Your task to perform on an android device: Open Google Maps and go to "Timeline" Image 0: 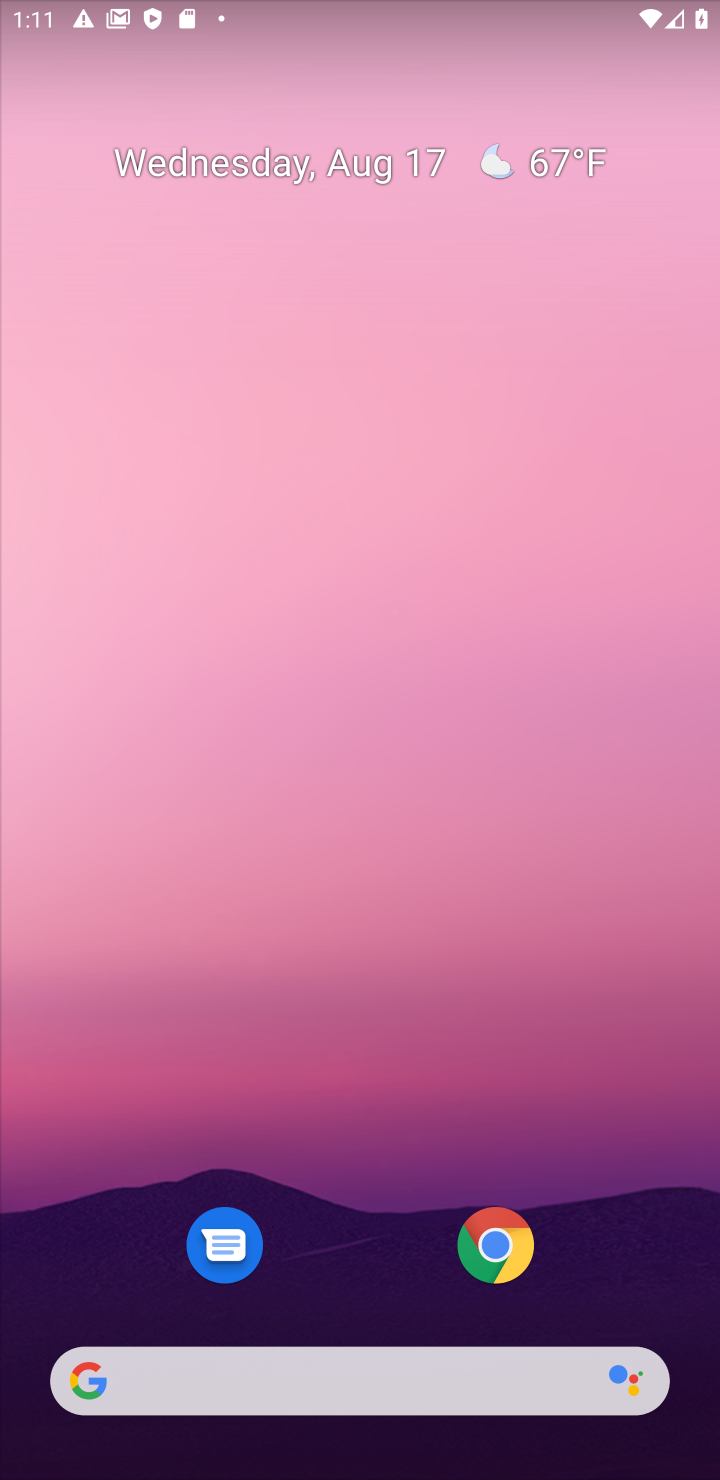
Step 0: drag from (333, 940) to (338, 486)
Your task to perform on an android device: Open Google Maps and go to "Timeline" Image 1: 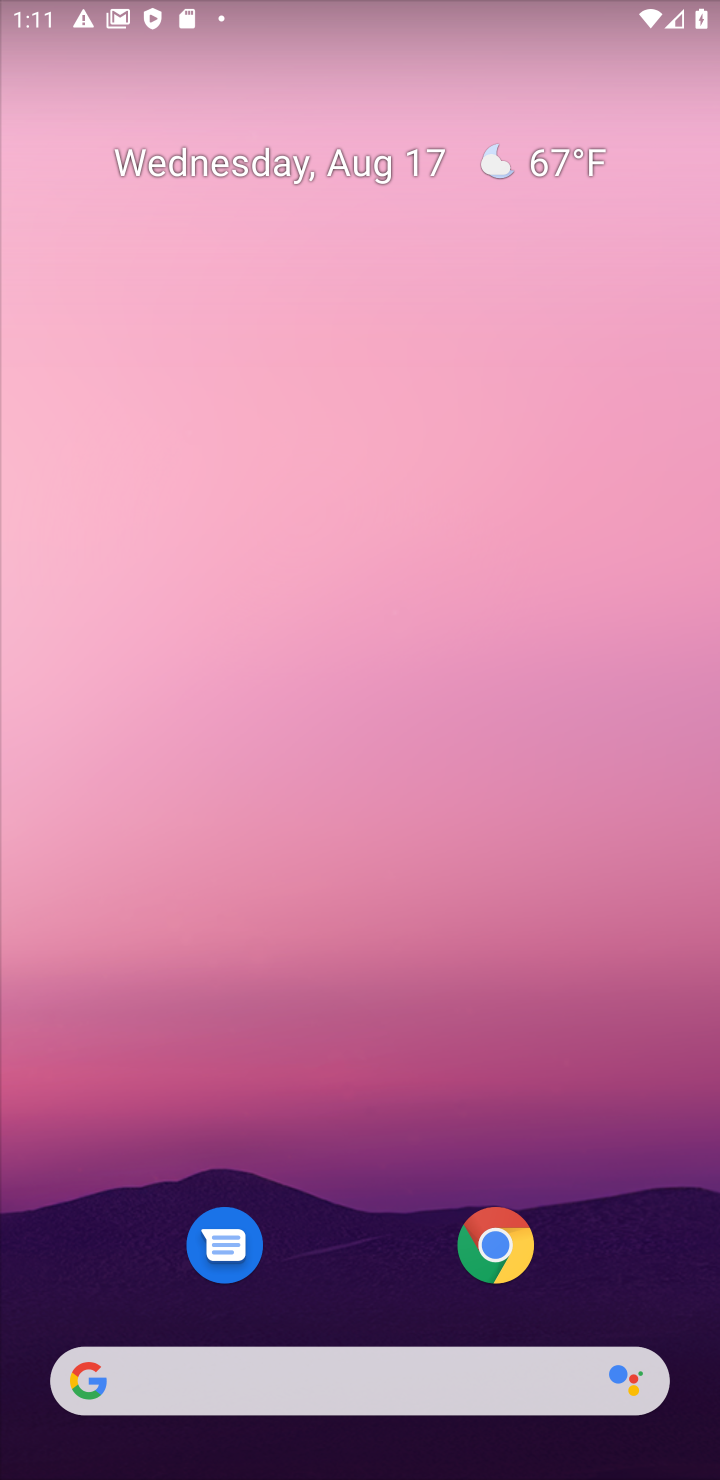
Step 1: drag from (365, 1008) to (281, 122)
Your task to perform on an android device: Open Google Maps and go to "Timeline" Image 2: 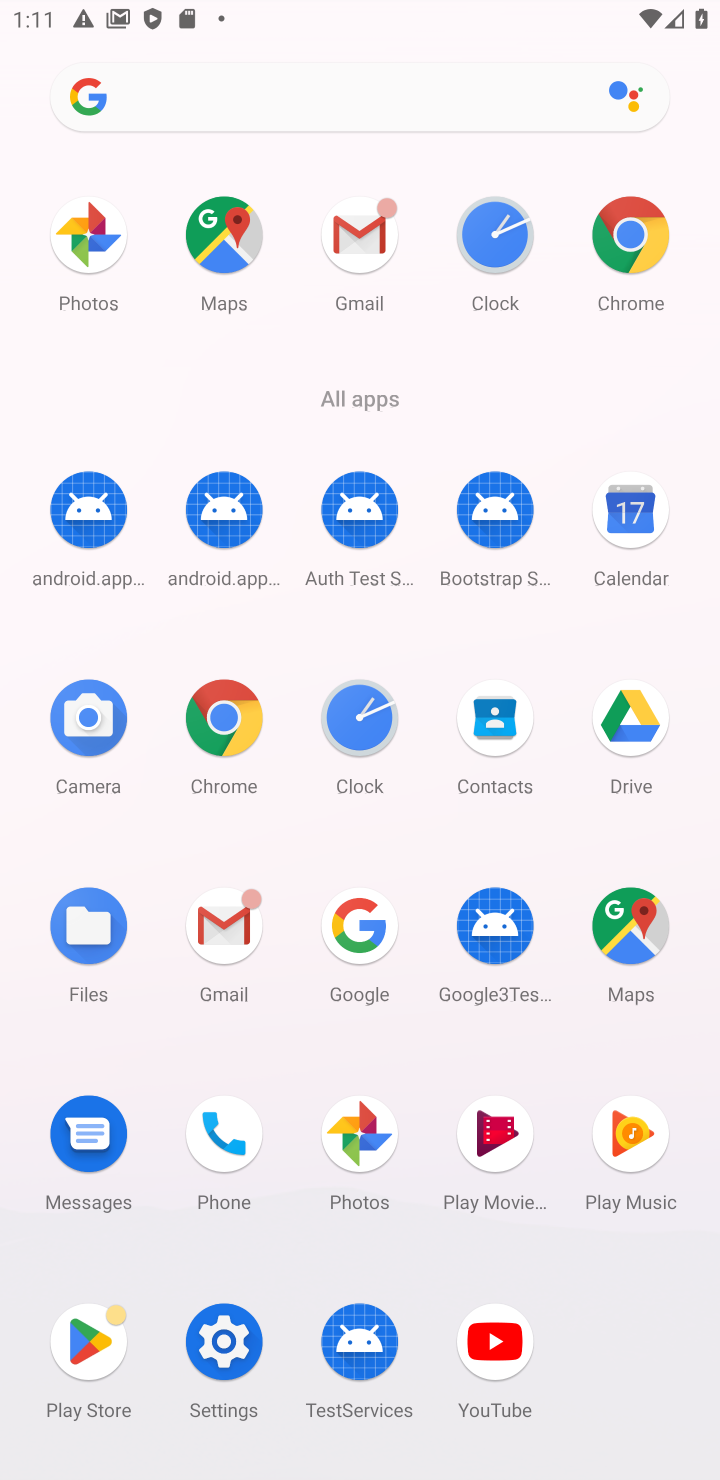
Step 2: click (639, 913)
Your task to perform on an android device: Open Google Maps and go to "Timeline" Image 3: 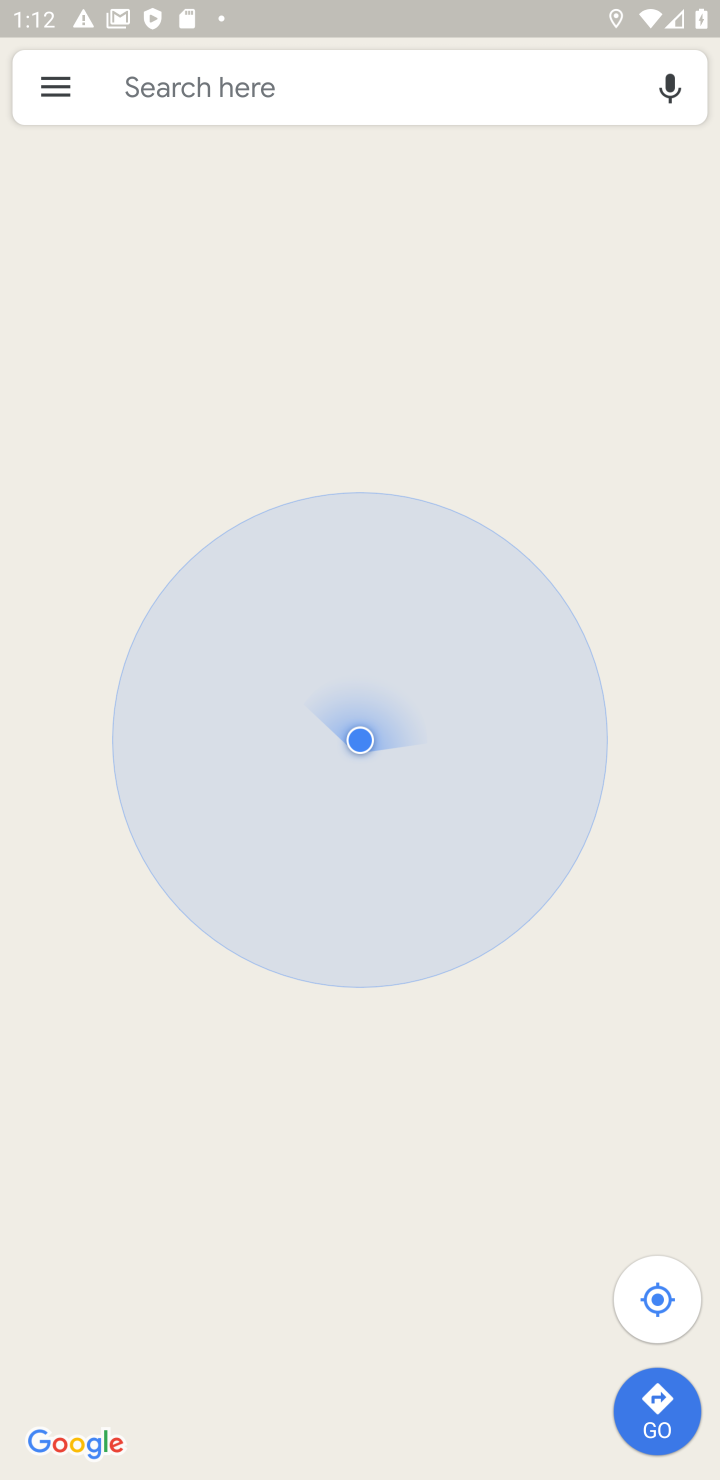
Step 3: click (49, 94)
Your task to perform on an android device: Open Google Maps and go to "Timeline" Image 4: 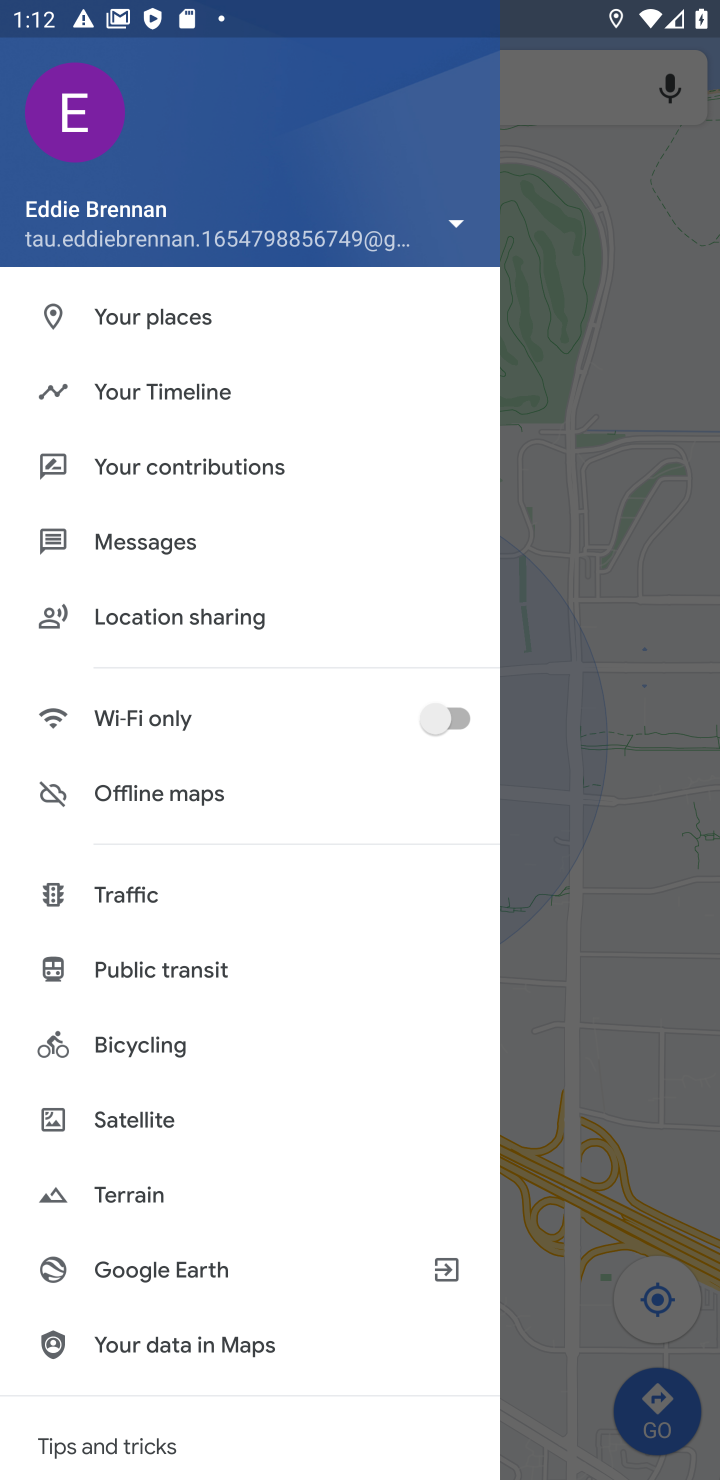
Step 4: click (201, 384)
Your task to perform on an android device: Open Google Maps and go to "Timeline" Image 5: 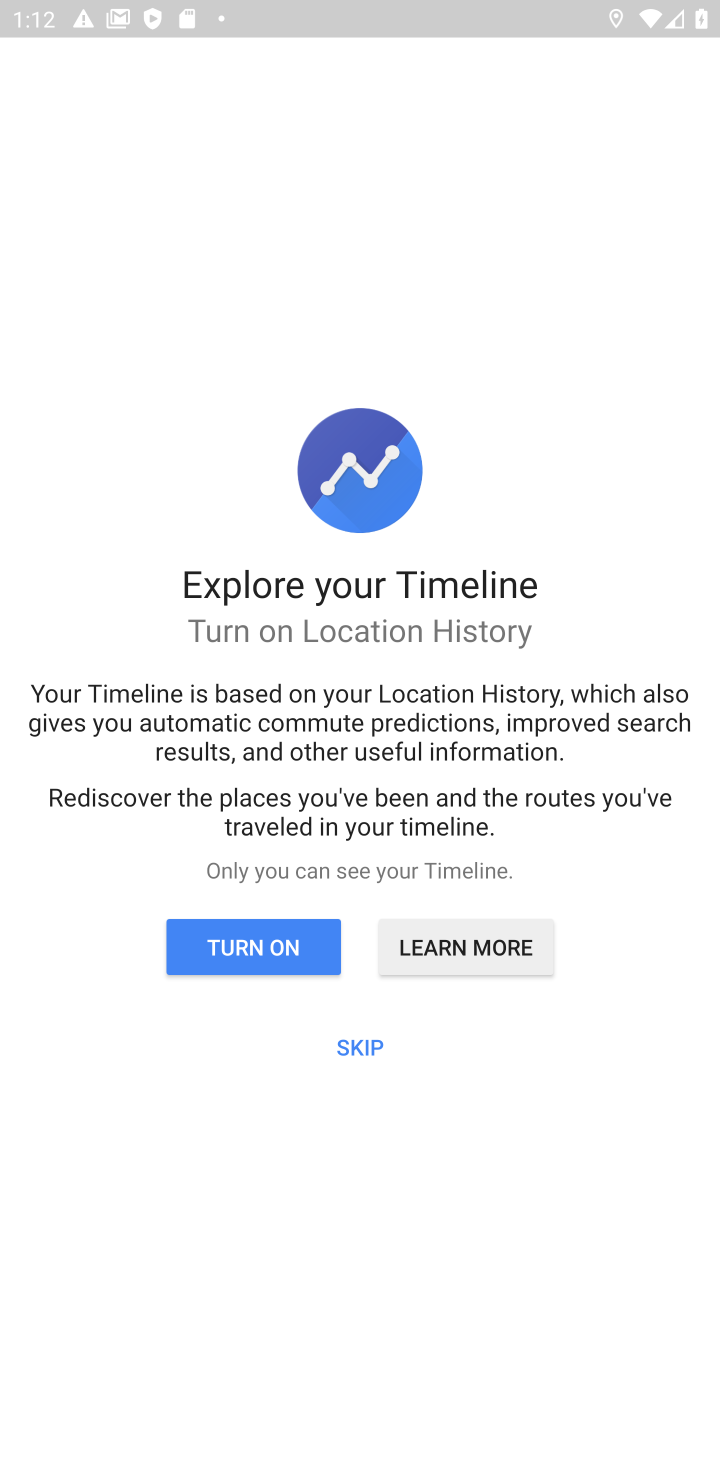
Step 5: click (355, 1042)
Your task to perform on an android device: Open Google Maps and go to "Timeline" Image 6: 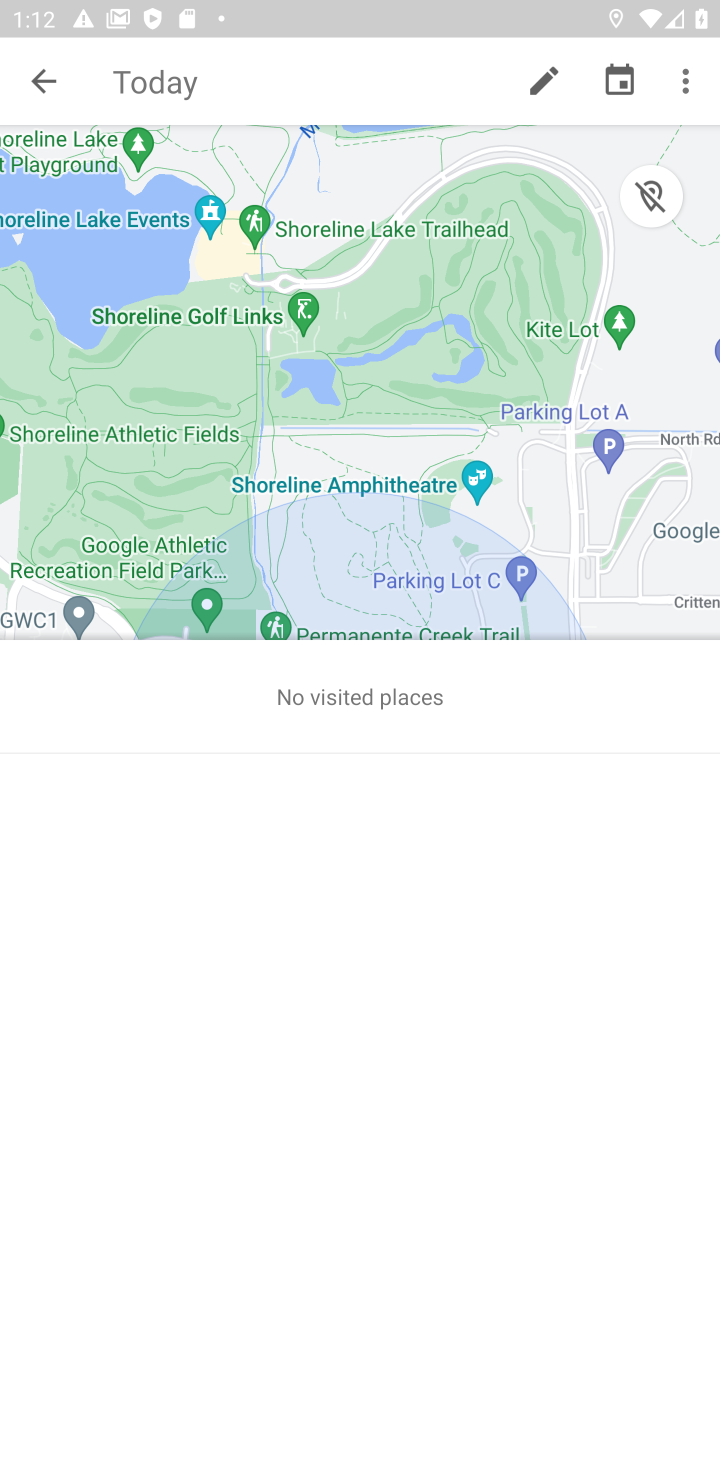
Step 6: task complete